Your task to perform on an android device: turn off airplane mode Image 0: 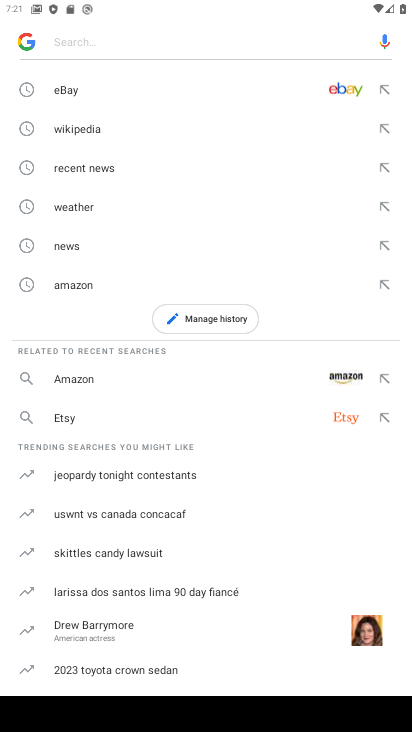
Step 0: press back button
Your task to perform on an android device: turn off airplane mode Image 1: 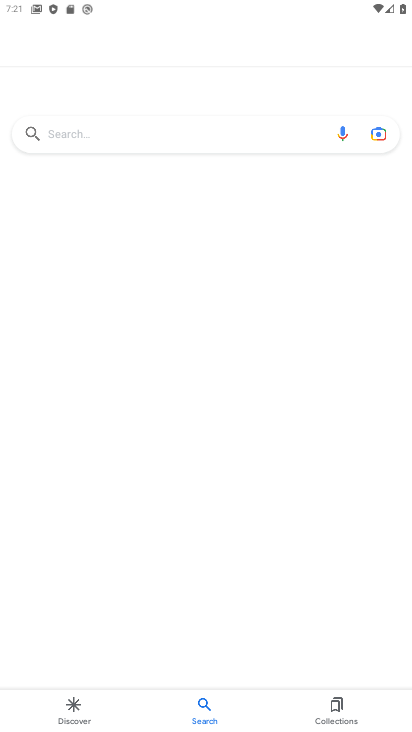
Step 1: task complete